Your task to perform on an android device: change timer sound Image 0: 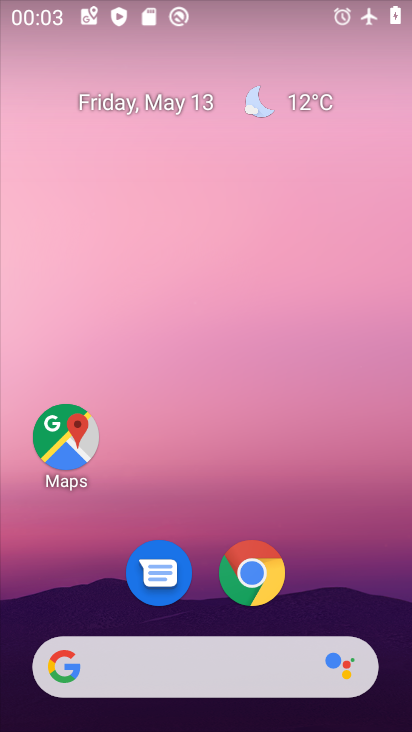
Step 0: drag from (201, 716) to (378, 75)
Your task to perform on an android device: change timer sound Image 1: 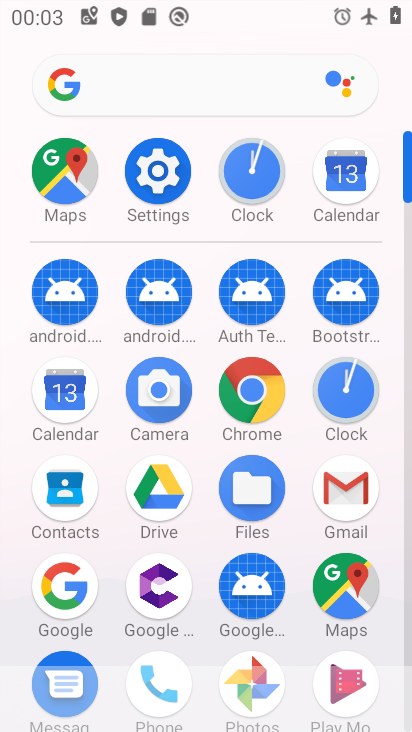
Step 1: click (264, 164)
Your task to perform on an android device: change timer sound Image 2: 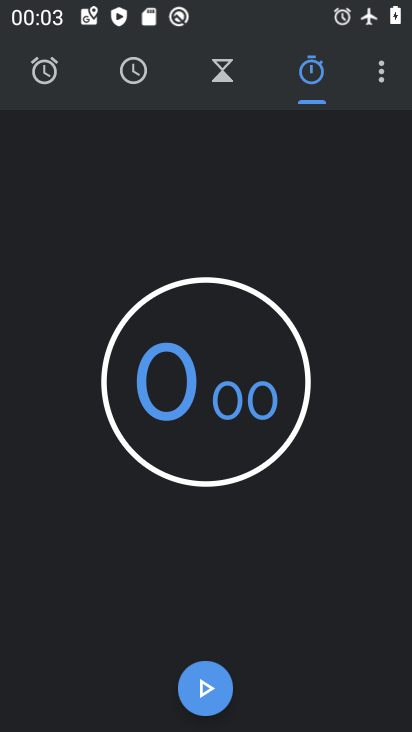
Step 2: click (385, 80)
Your task to perform on an android device: change timer sound Image 3: 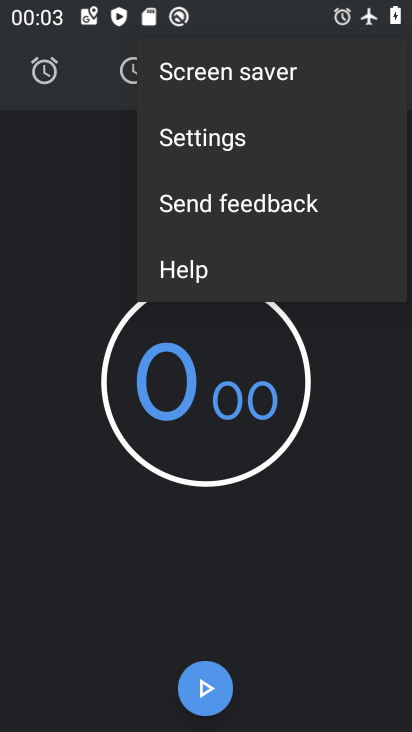
Step 3: click (242, 158)
Your task to perform on an android device: change timer sound Image 4: 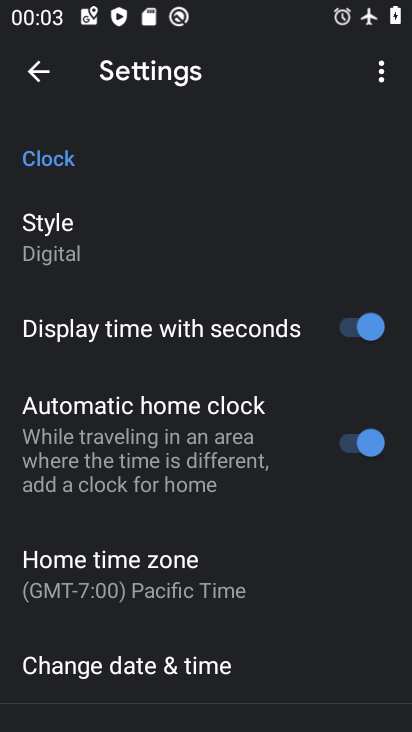
Step 4: drag from (297, 671) to (299, 49)
Your task to perform on an android device: change timer sound Image 5: 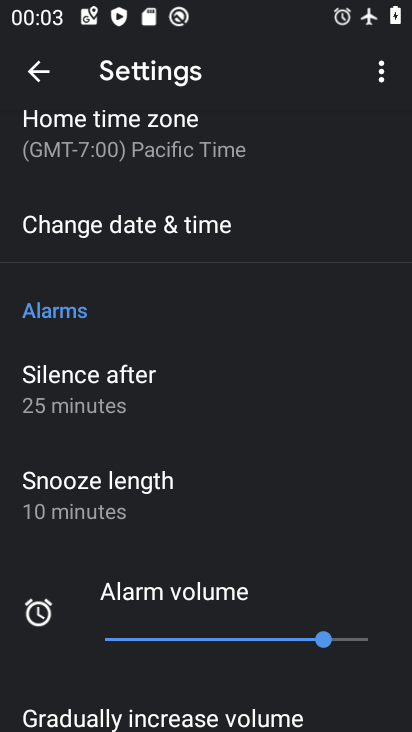
Step 5: drag from (224, 568) to (232, 132)
Your task to perform on an android device: change timer sound Image 6: 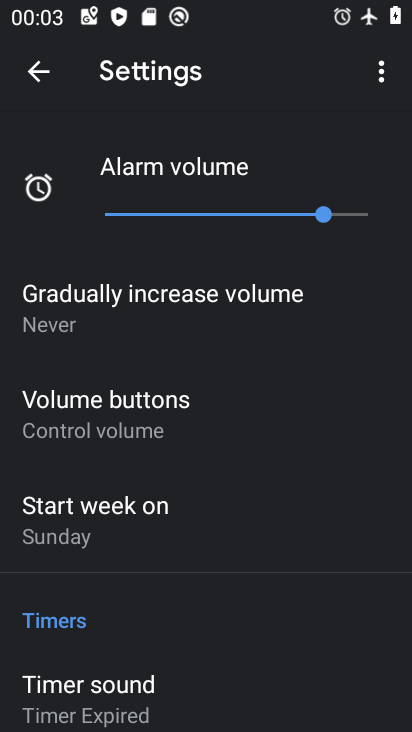
Step 6: drag from (208, 206) to (208, 622)
Your task to perform on an android device: change timer sound Image 7: 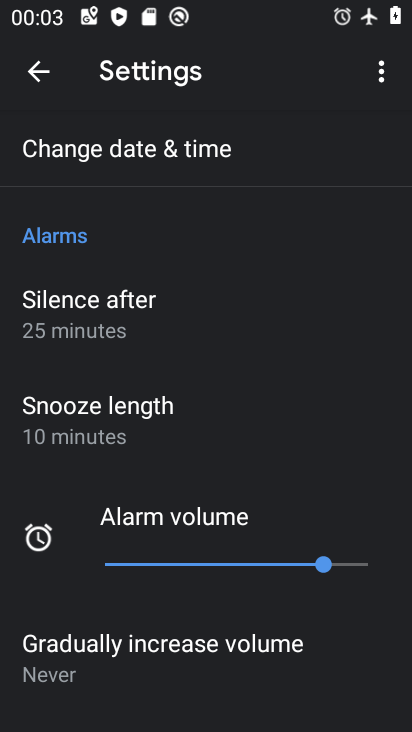
Step 7: drag from (134, 621) to (204, 99)
Your task to perform on an android device: change timer sound Image 8: 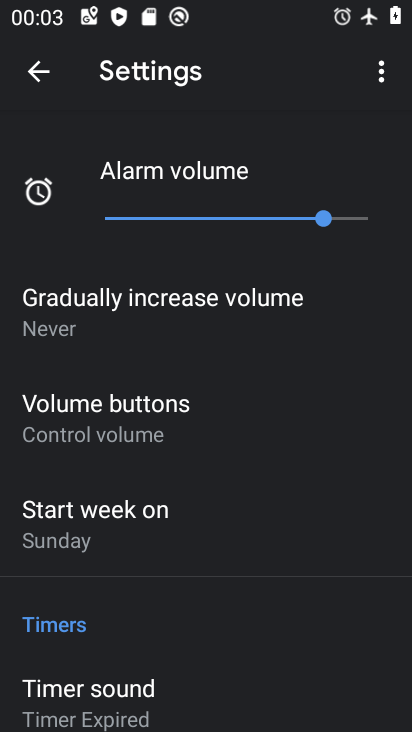
Step 8: click (116, 704)
Your task to perform on an android device: change timer sound Image 9: 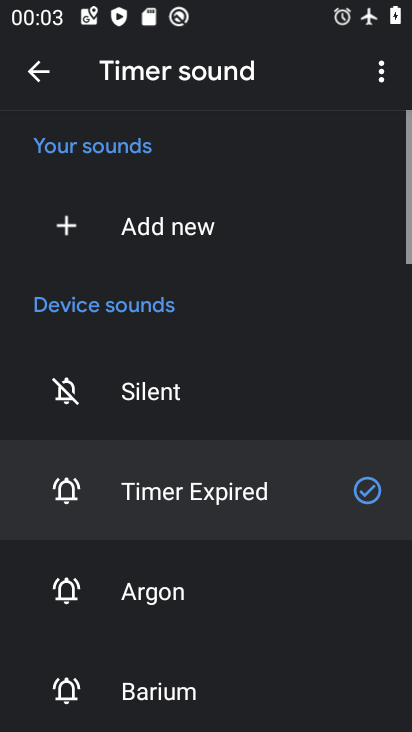
Step 9: click (186, 691)
Your task to perform on an android device: change timer sound Image 10: 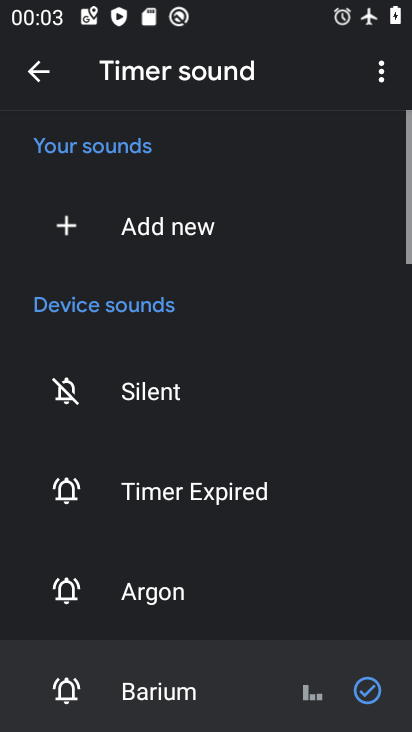
Step 10: task complete